Your task to perform on an android device: Go to notification settings Image 0: 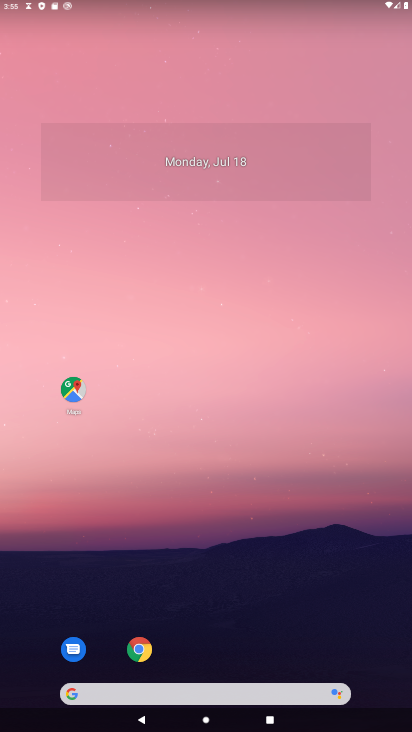
Step 0: press home button
Your task to perform on an android device: Go to notification settings Image 1: 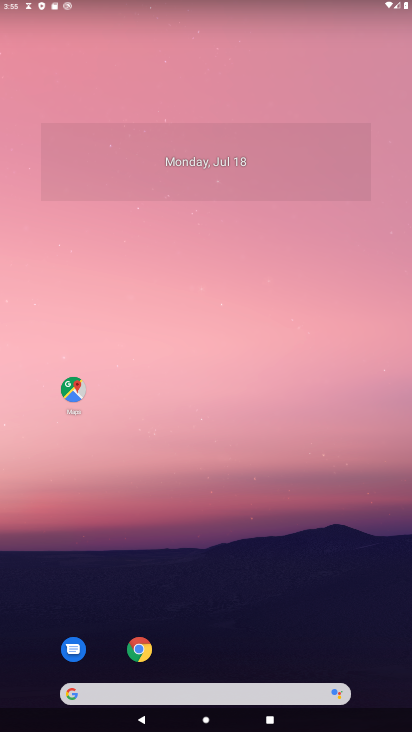
Step 1: drag from (257, 625) to (192, 113)
Your task to perform on an android device: Go to notification settings Image 2: 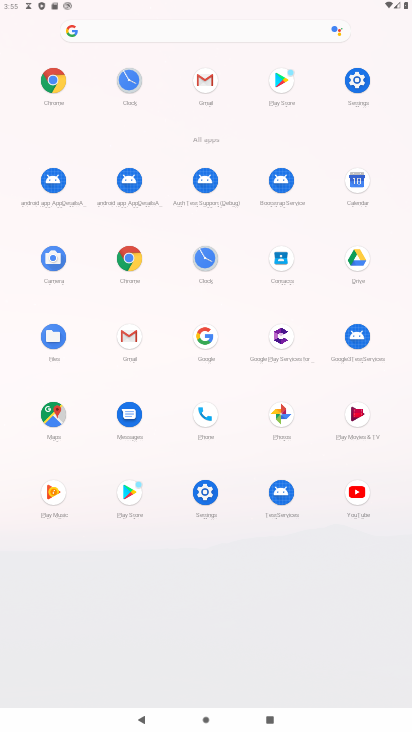
Step 2: click (355, 77)
Your task to perform on an android device: Go to notification settings Image 3: 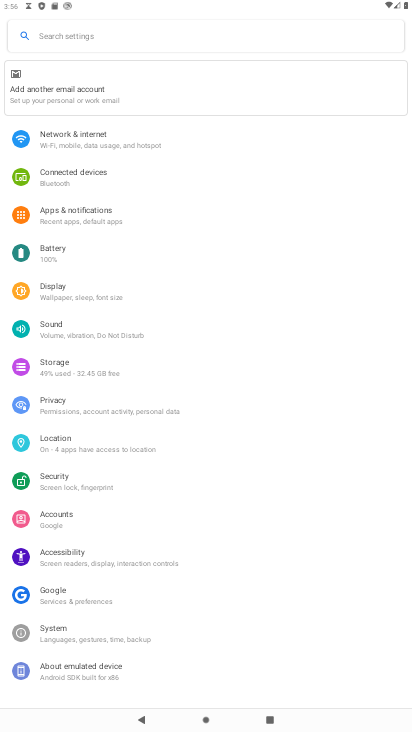
Step 3: click (61, 207)
Your task to perform on an android device: Go to notification settings Image 4: 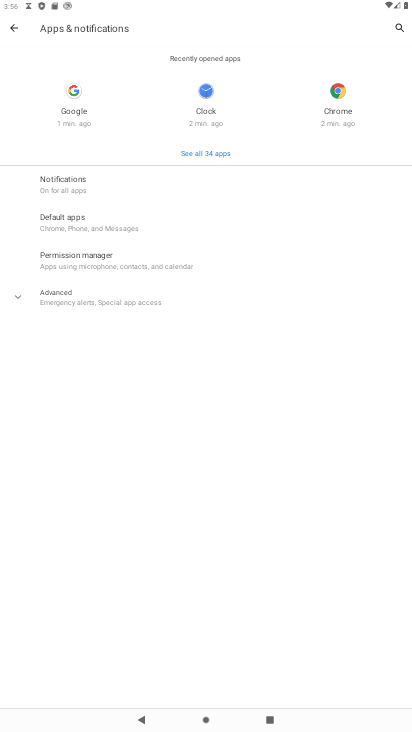
Step 4: click (69, 185)
Your task to perform on an android device: Go to notification settings Image 5: 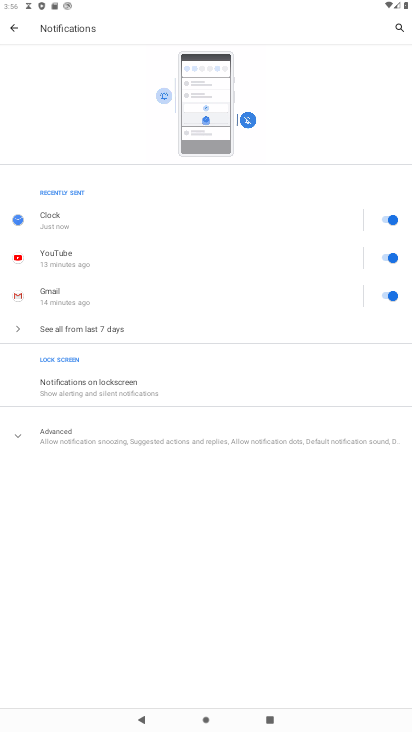
Step 5: task complete